Your task to perform on an android device: Go to Yahoo.com Image 0: 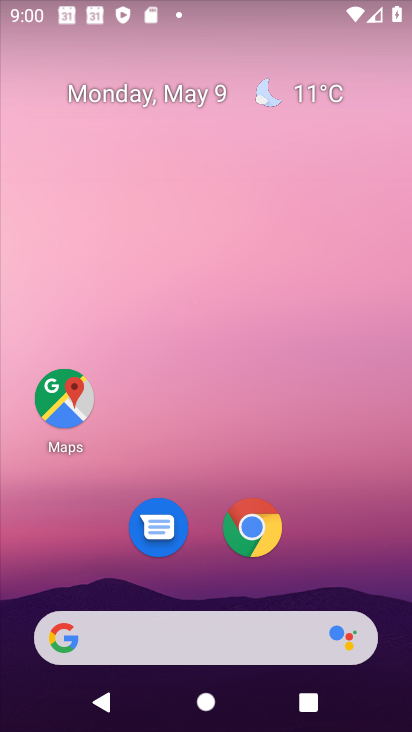
Step 0: click (242, 528)
Your task to perform on an android device: Go to Yahoo.com Image 1: 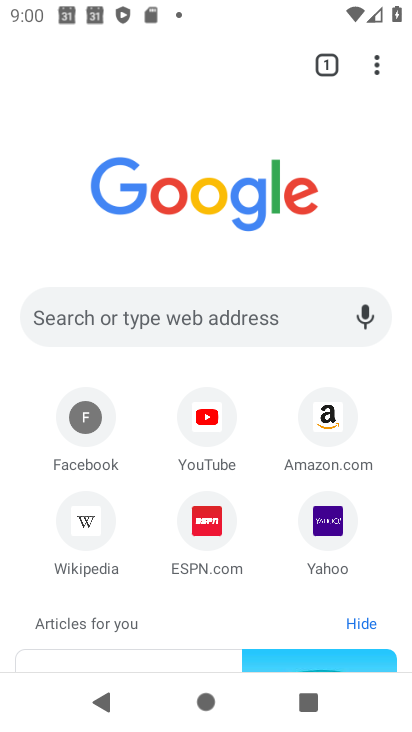
Step 1: click (343, 523)
Your task to perform on an android device: Go to Yahoo.com Image 2: 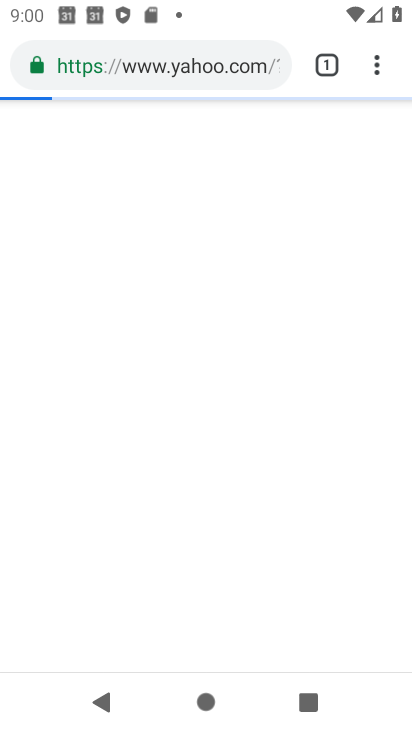
Step 2: click (334, 536)
Your task to perform on an android device: Go to Yahoo.com Image 3: 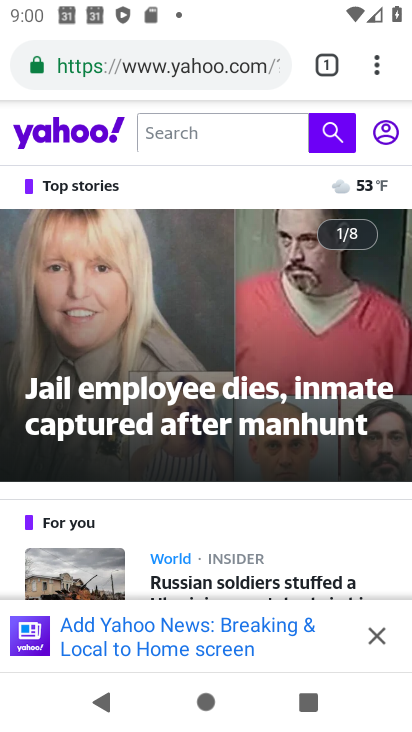
Step 3: task complete